Your task to perform on an android device: Toggle the flashlight Image 0: 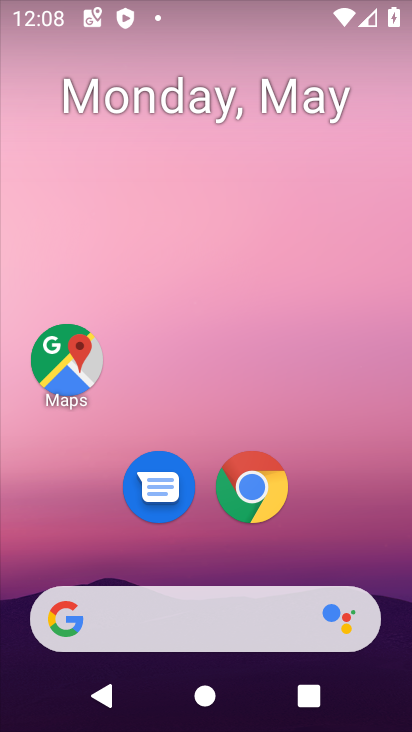
Step 0: drag from (347, 520) to (338, 36)
Your task to perform on an android device: Toggle the flashlight Image 1: 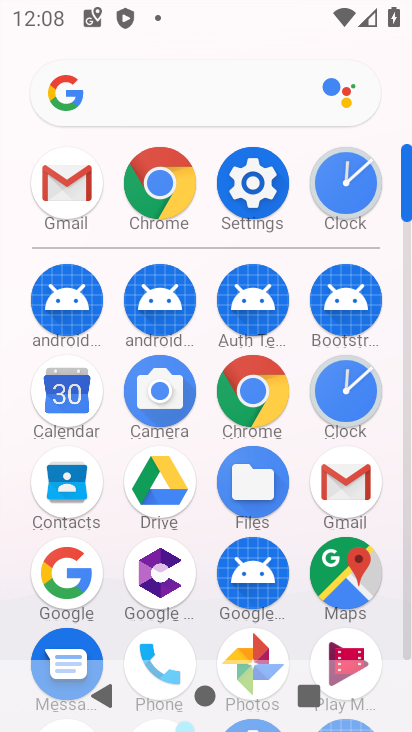
Step 1: click (244, 179)
Your task to perform on an android device: Toggle the flashlight Image 2: 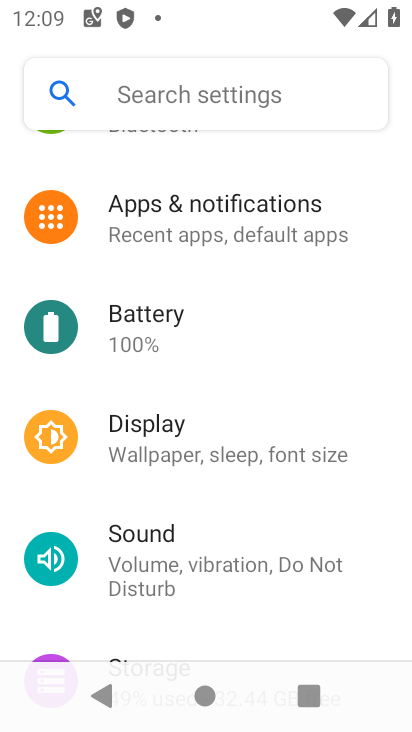
Step 2: task complete